Your task to perform on an android device: Open wifi settings Image 0: 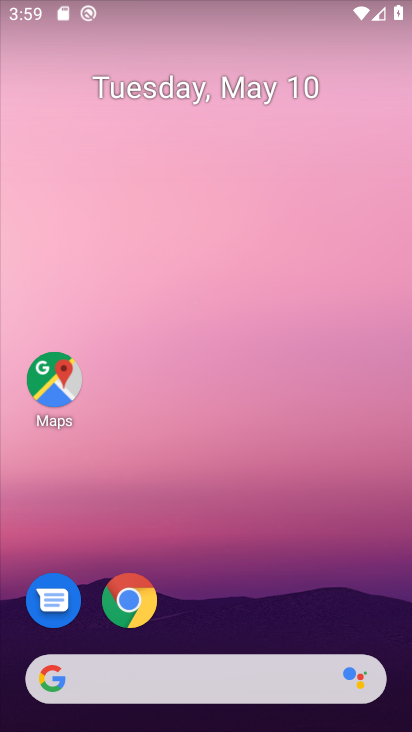
Step 0: drag from (267, 540) to (273, 165)
Your task to perform on an android device: Open wifi settings Image 1: 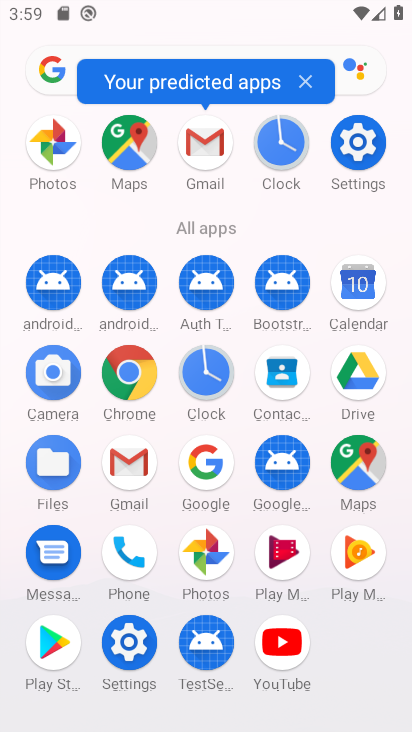
Step 1: click (364, 153)
Your task to perform on an android device: Open wifi settings Image 2: 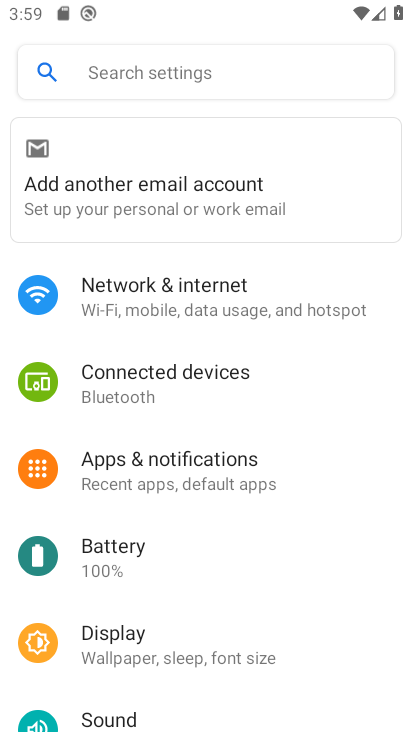
Step 2: click (157, 294)
Your task to perform on an android device: Open wifi settings Image 3: 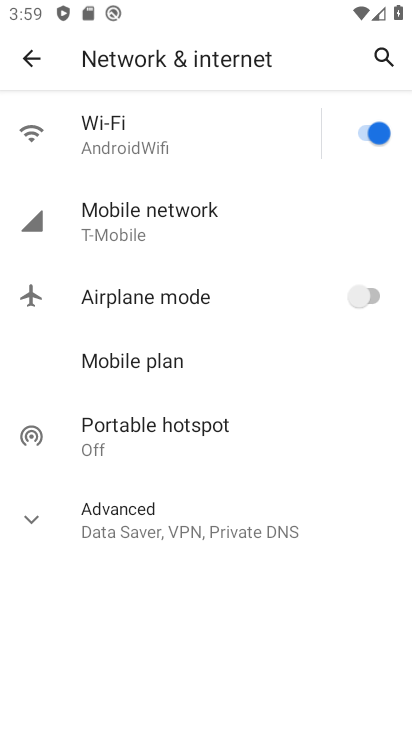
Step 3: click (146, 138)
Your task to perform on an android device: Open wifi settings Image 4: 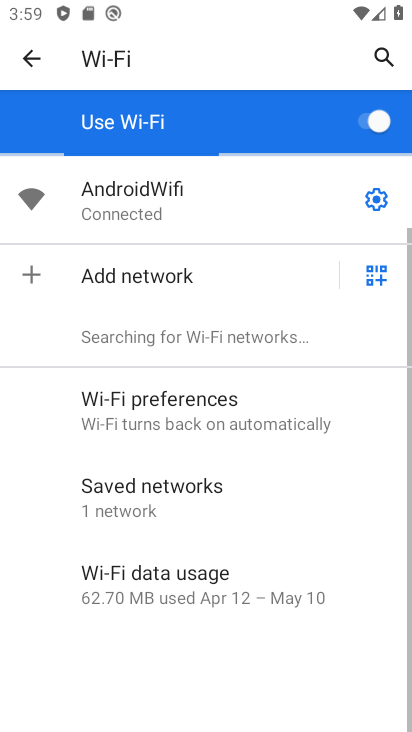
Step 4: task complete